Your task to perform on an android device: Is it going to rain tomorrow? Image 0: 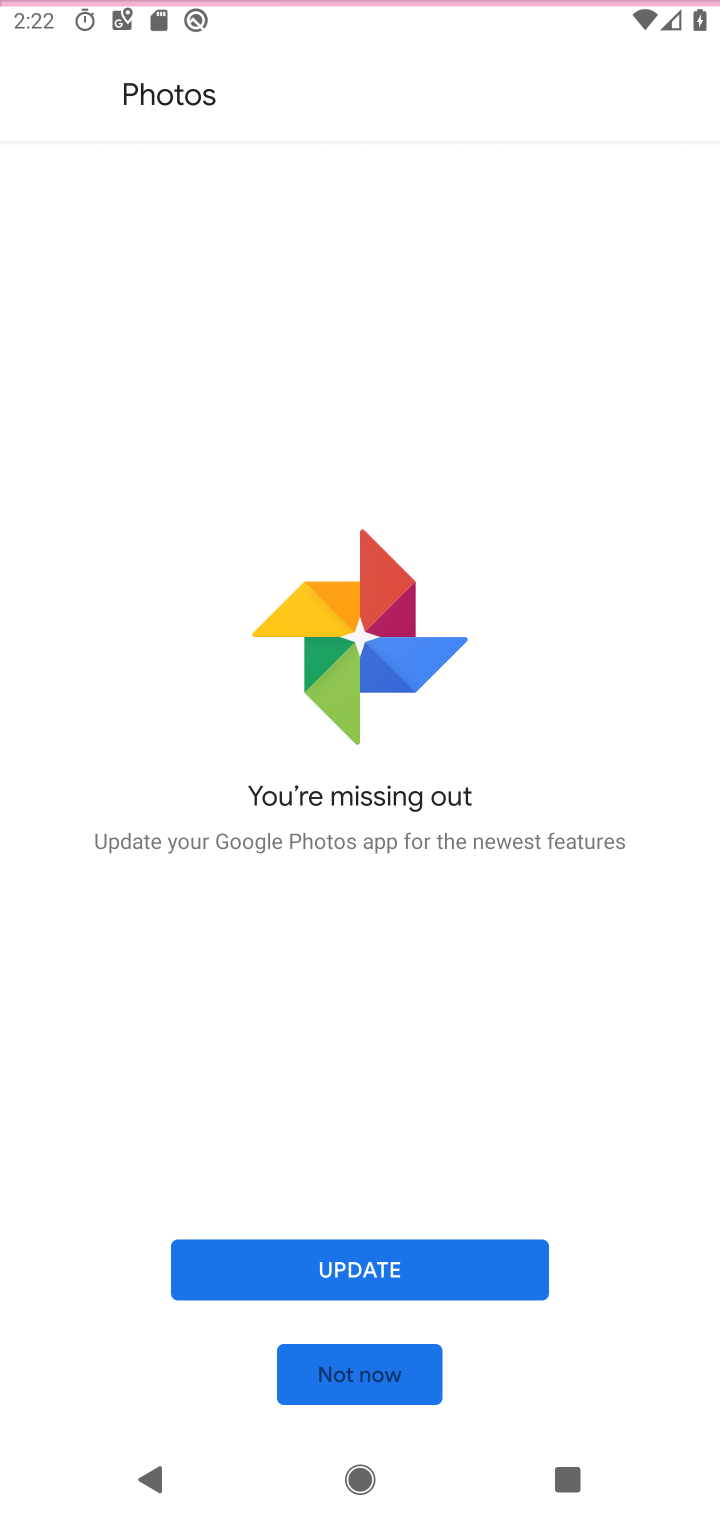
Step 0: press home button
Your task to perform on an android device: Is it going to rain tomorrow? Image 1: 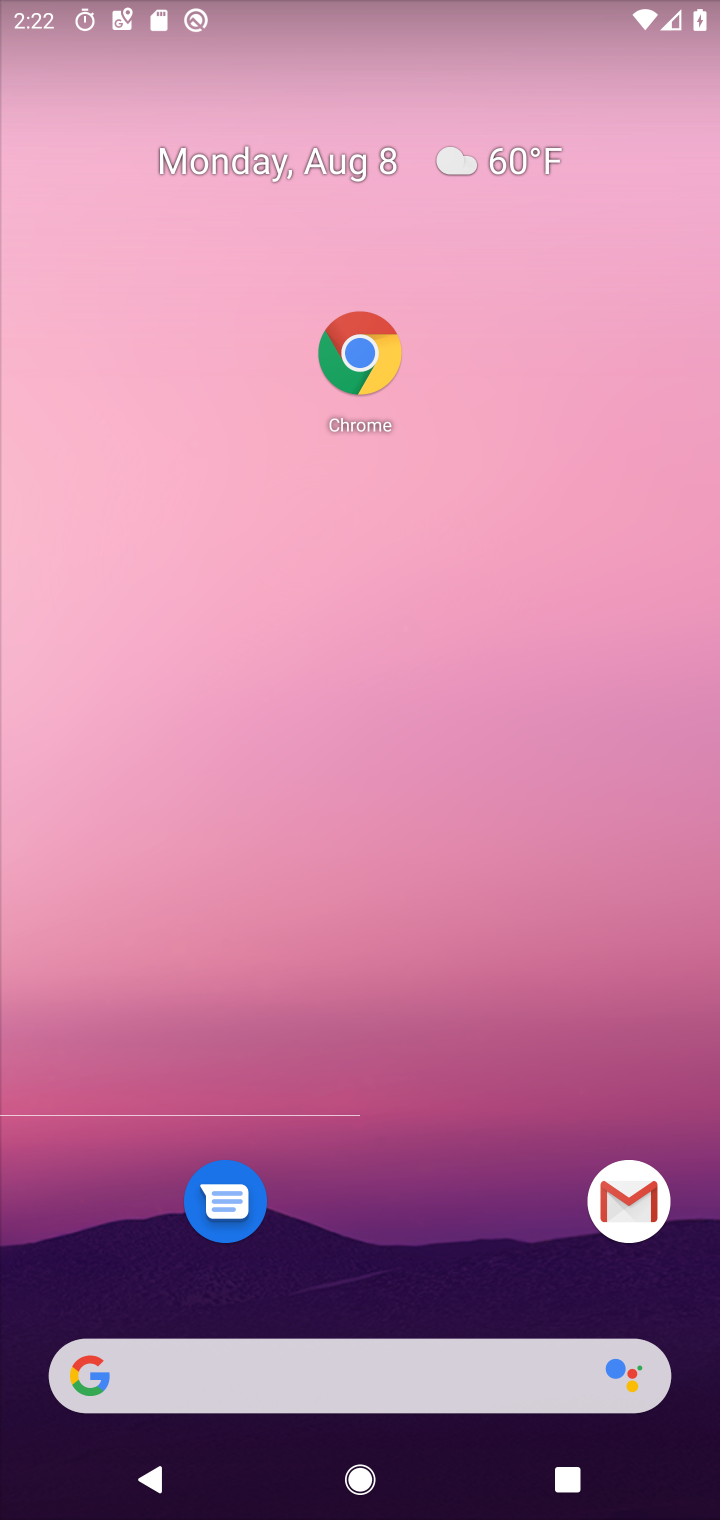
Step 1: drag from (487, 1376) to (583, 440)
Your task to perform on an android device: Is it going to rain tomorrow? Image 2: 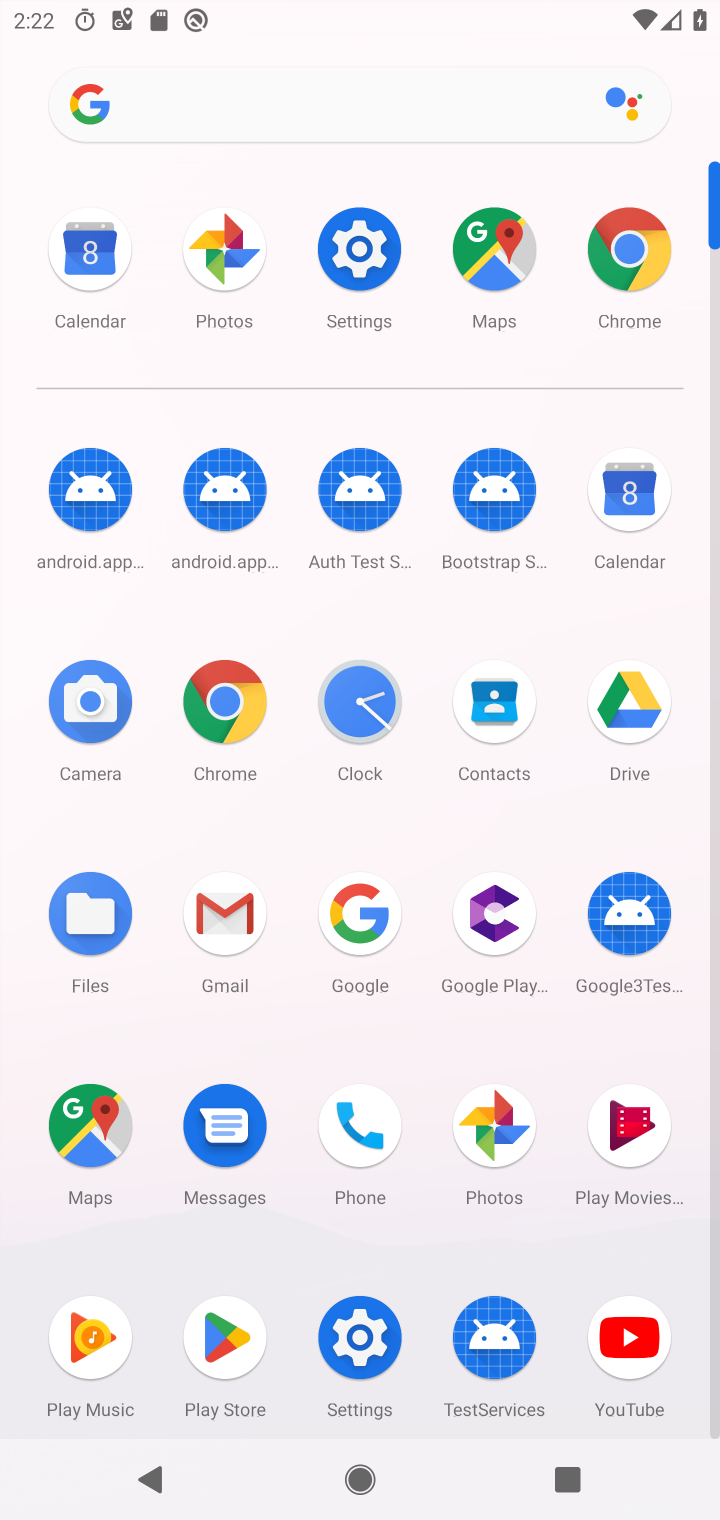
Step 2: click (188, 95)
Your task to perform on an android device: Is it going to rain tomorrow? Image 3: 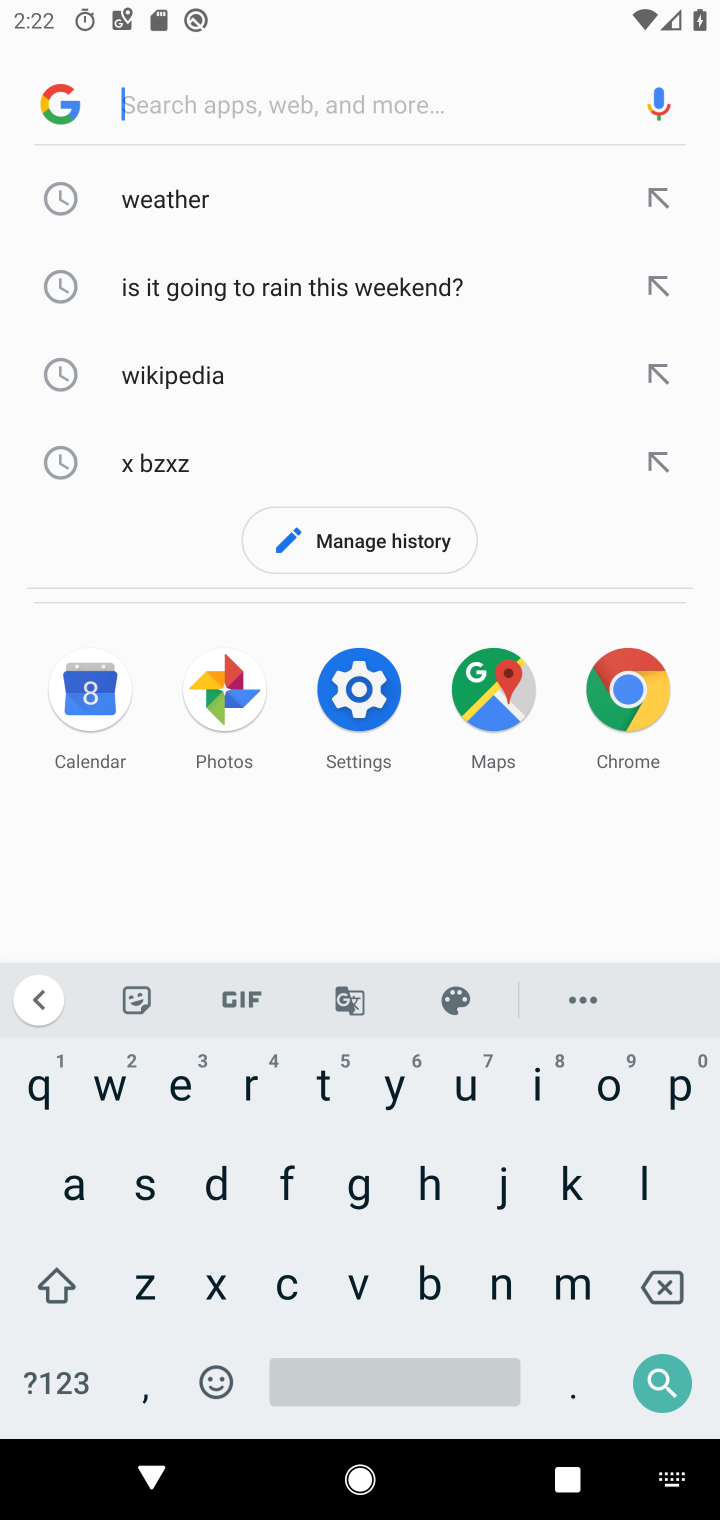
Step 3: click (533, 1093)
Your task to perform on an android device: Is it going to rain tomorrow? Image 4: 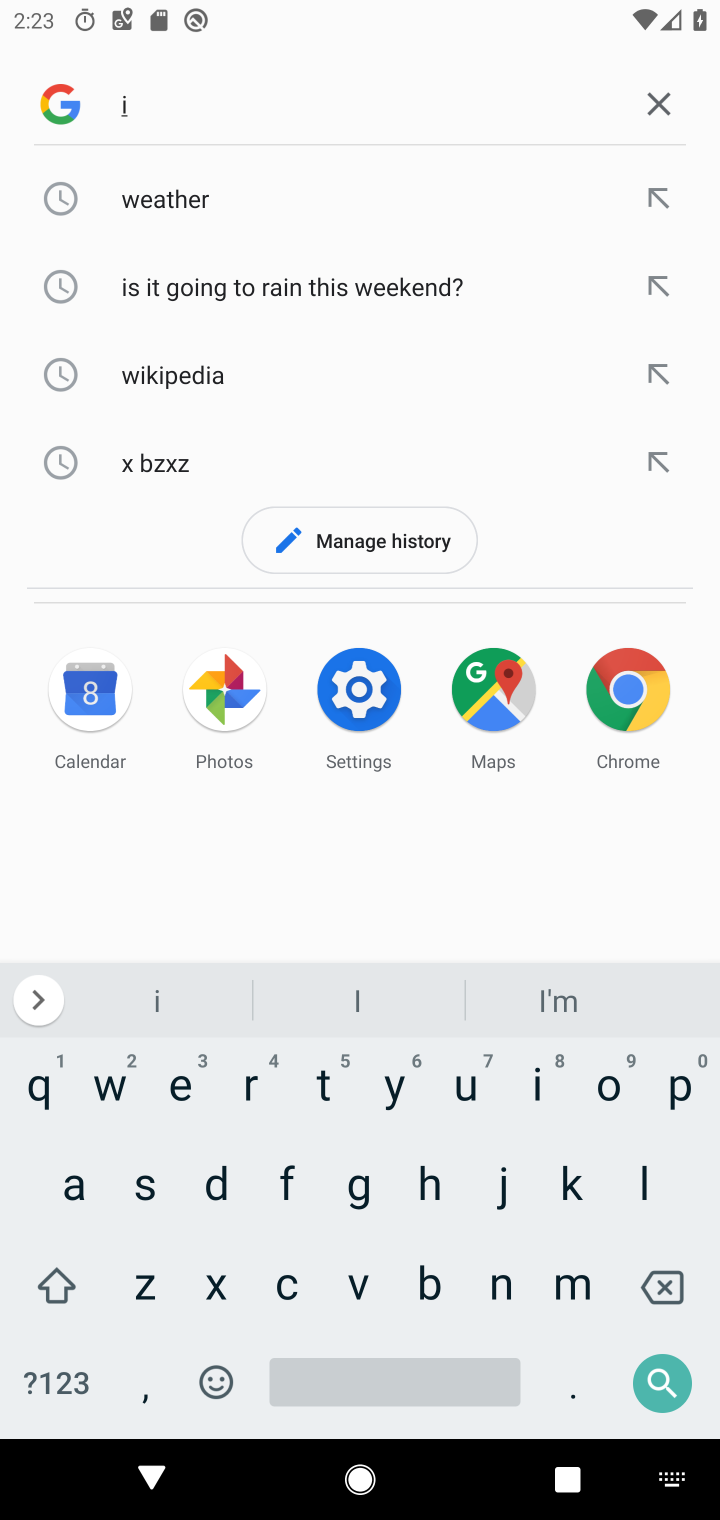
Step 4: click (150, 1187)
Your task to perform on an android device: Is it going to rain tomorrow? Image 5: 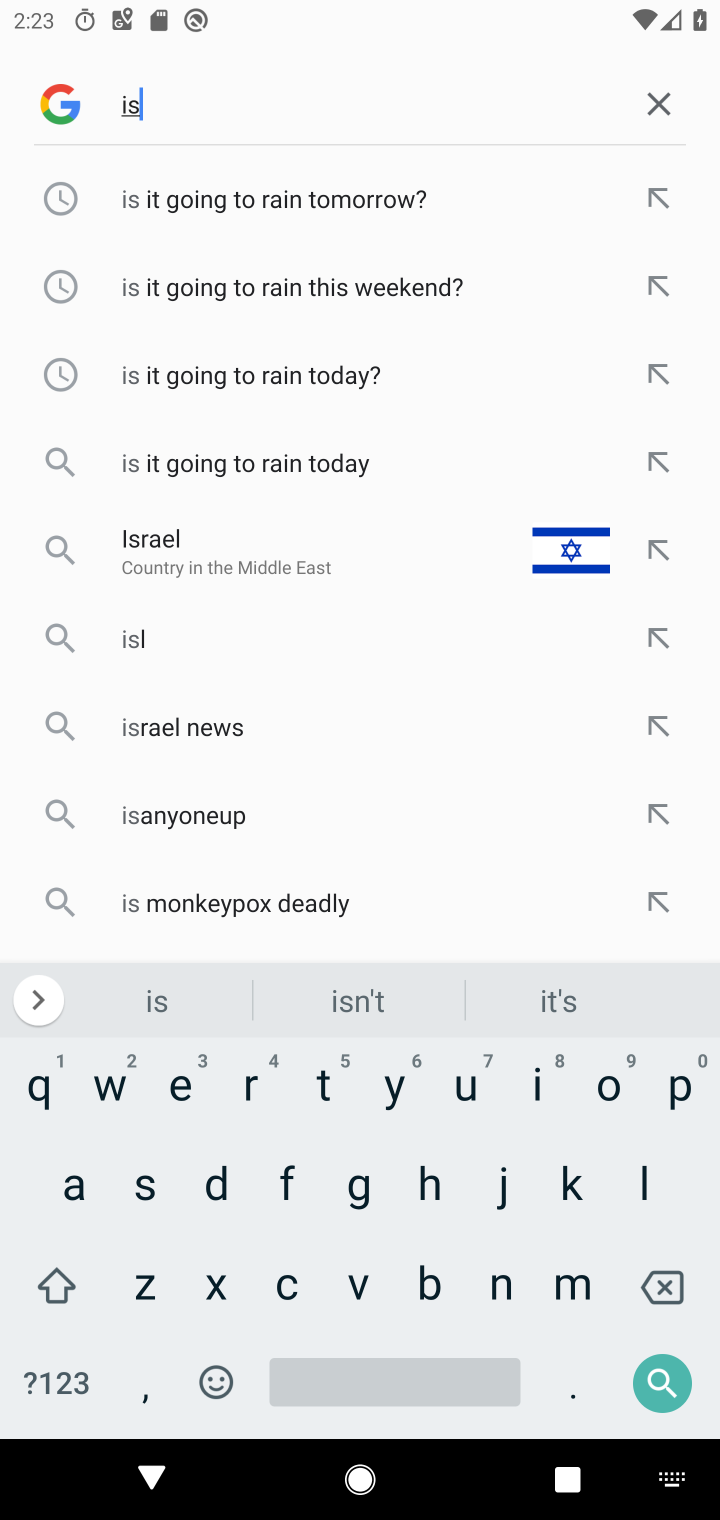
Step 5: click (260, 186)
Your task to perform on an android device: Is it going to rain tomorrow? Image 6: 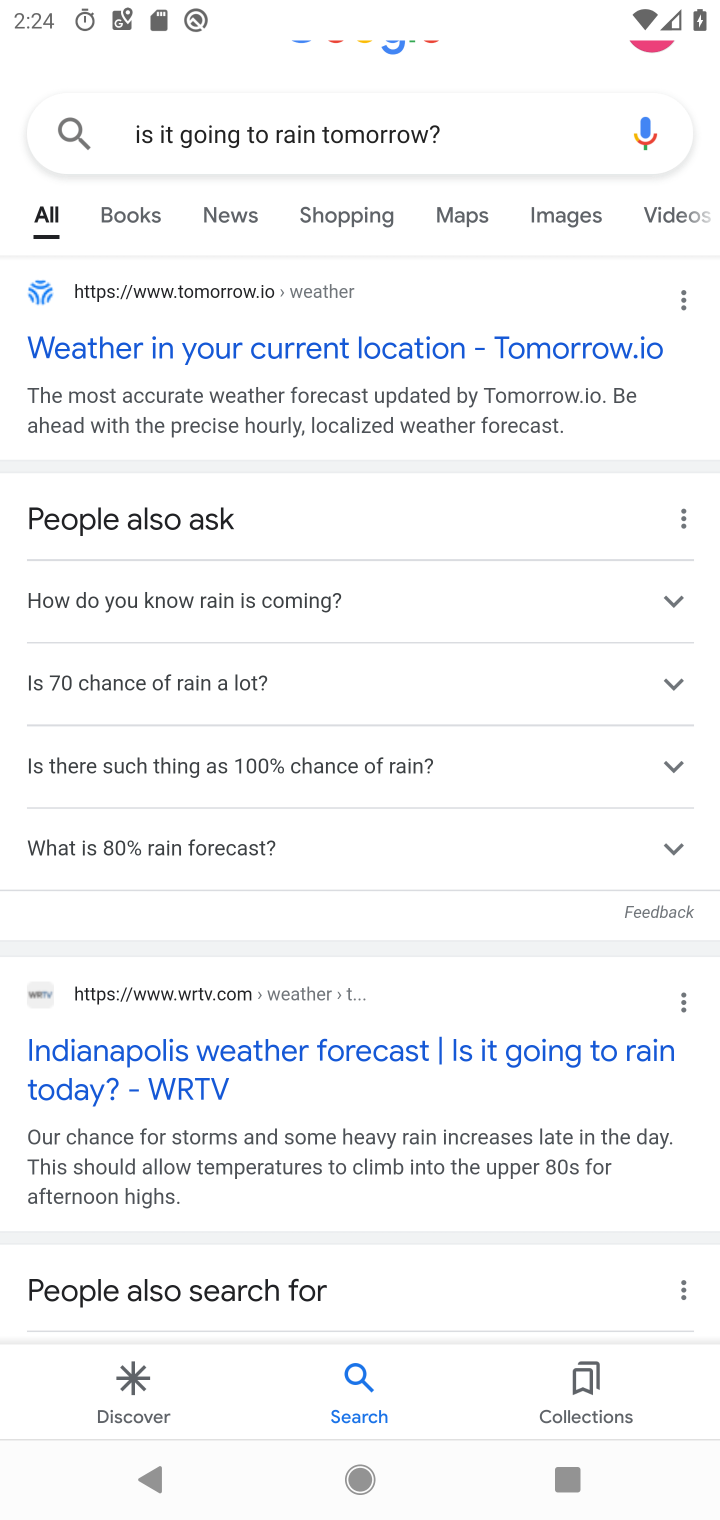
Step 6: task complete